Your task to perform on an android device: turn off notifications in google photos Image 0: 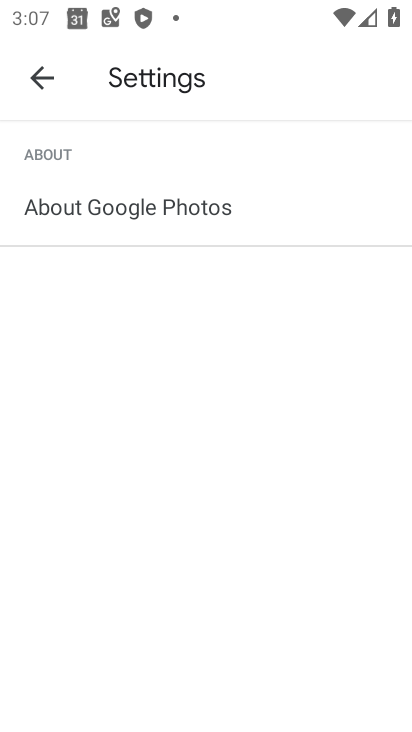
Step 0: press home button
Your task to perform on an android device: turn off notifications in google photos Image 1: 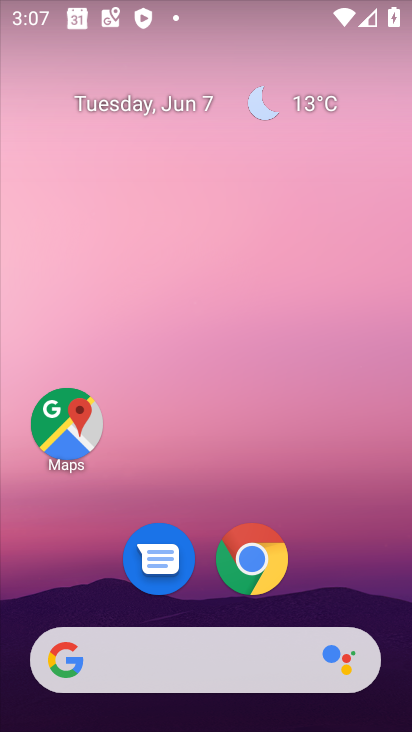
Step 1: drag from (339, 592) to (296, 43)
Your task to perform on an android device: turn off notifications in google photos Image 2: 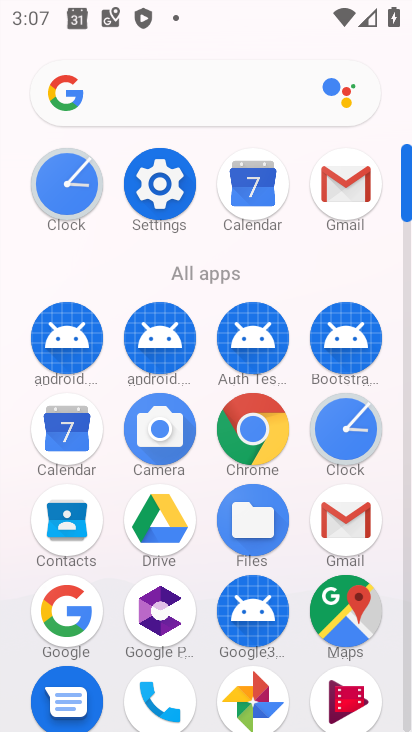
Step 2: drag from (294, 279) to (316, 142)
Your task to perform on an android device: turn off notifications in google photos Image 3: 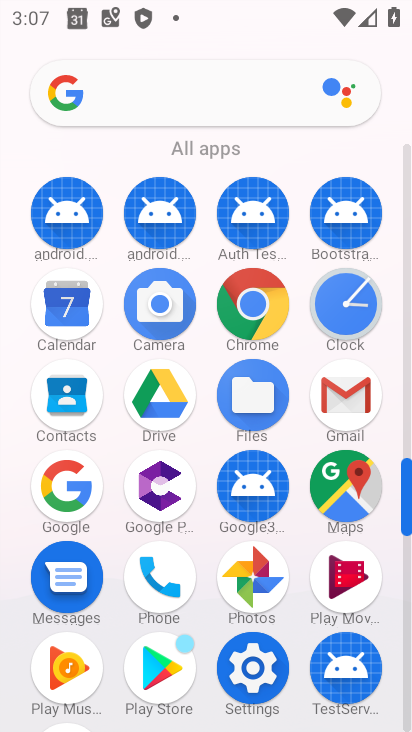
Step 3: click (250, 572)
Your task to perform on an android device: turn off notifications in google photos Image 4: 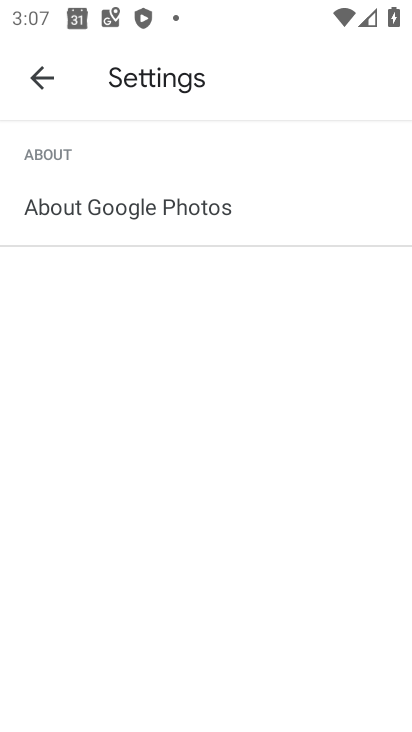
Step 4: click (39, 79)
Your task to perform on an android device: turn off notifications in google photos Image 5: 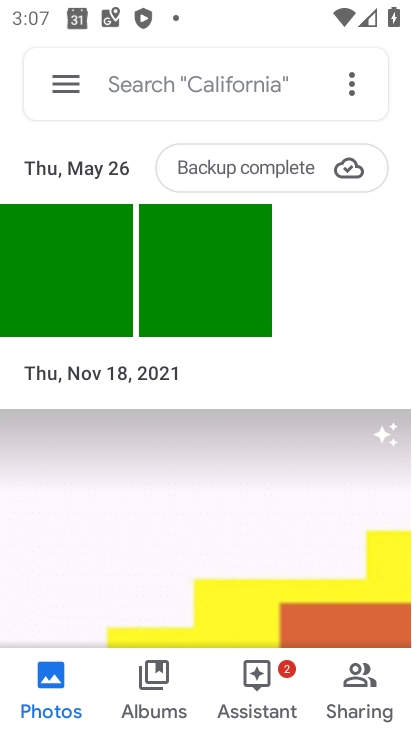
Step 5: click (61, 88)
Your task to perform on an android device: turn off notifications in google photos Image 6: 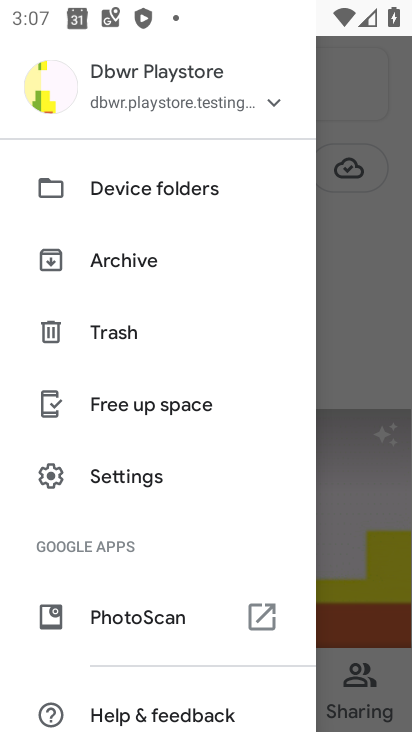
Step 6: click (116, 470)
Your task to perform on an android device: turn off notifications in google photos Image 7: 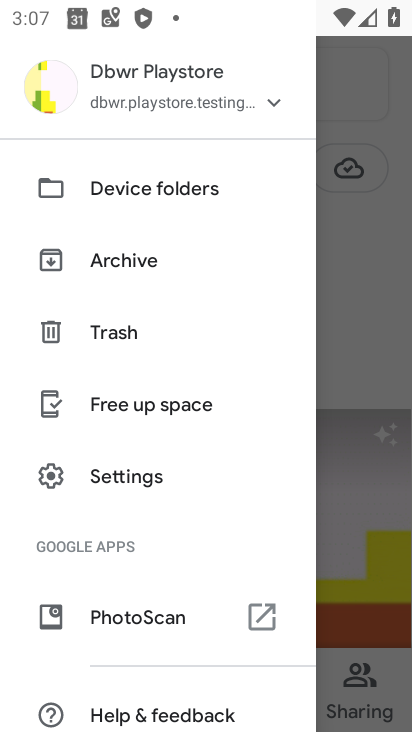
Step 7: click (123, 479)
Your task to perform on an android device: turn off notifications in google photos Image 8: 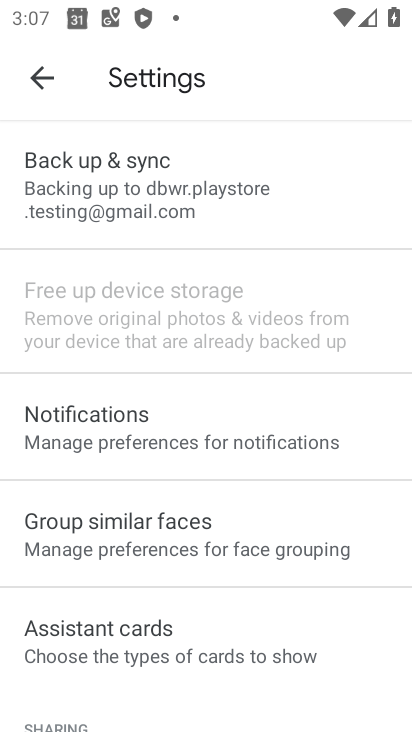
Step 8: click (112, 429)
Your task to perform on an android device: turn off notifications in google photos Image 9: 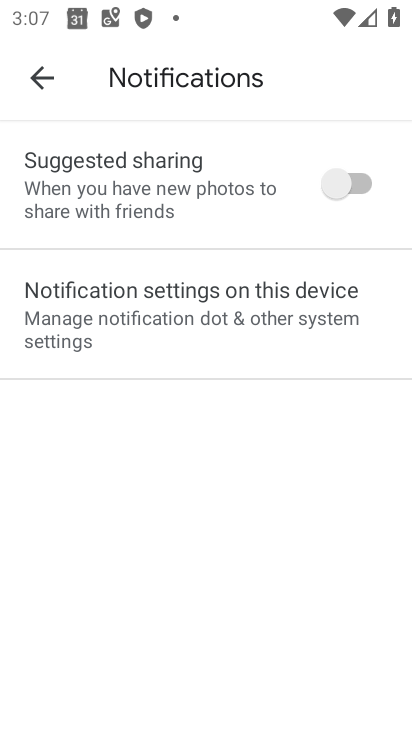
Step 9: click (148, 292)
Your task to perform on an android device: turn off notifications in google photos Image 10: 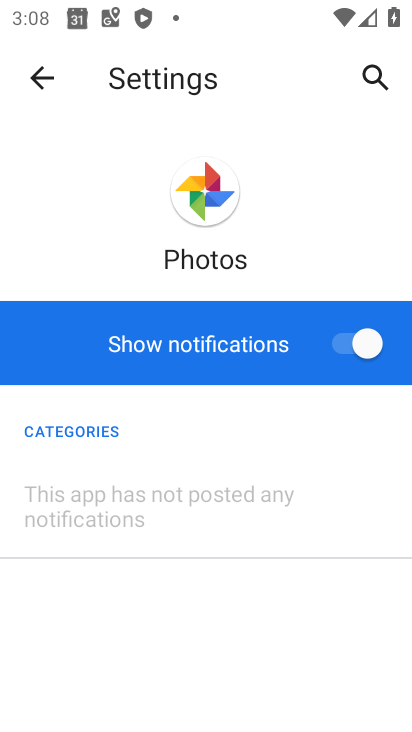
Step 10: click (342, 344)
Your task to perform on an android device: turn off notifications in google photos Image 11: 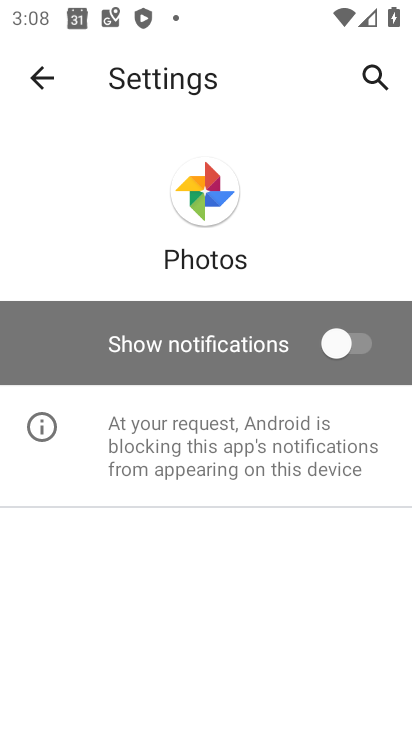
Step 11: task complete